Your task to perform on an android device: install app "McDonald's" Image 0: 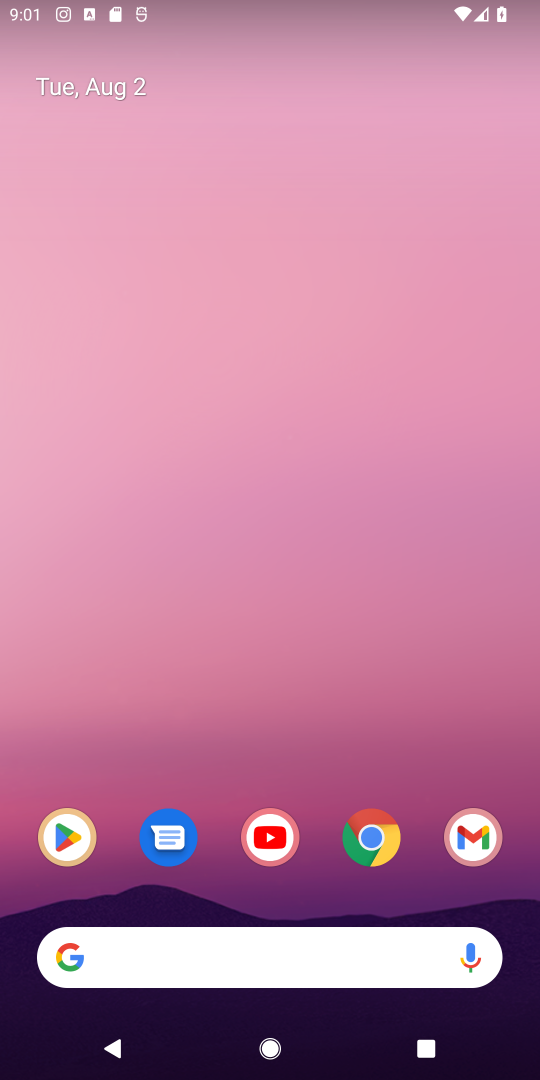
Step 0: click (68, 845)
Your task to perform on an android device: install app "McDonald's" Image 1: 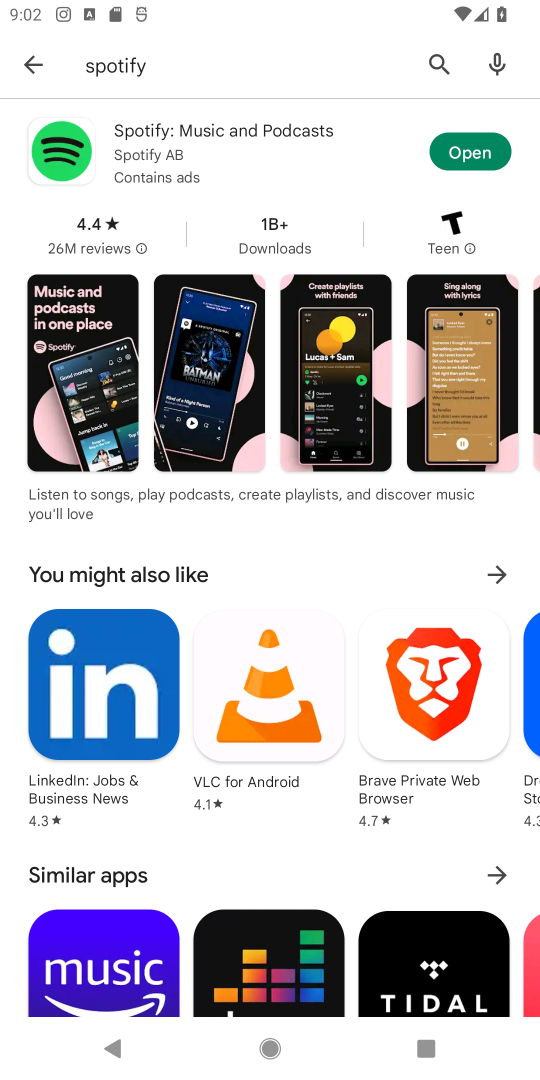
Step 1: click (439, 66)
Your task to perform on an android device: install app "McDonald's" Image 2: 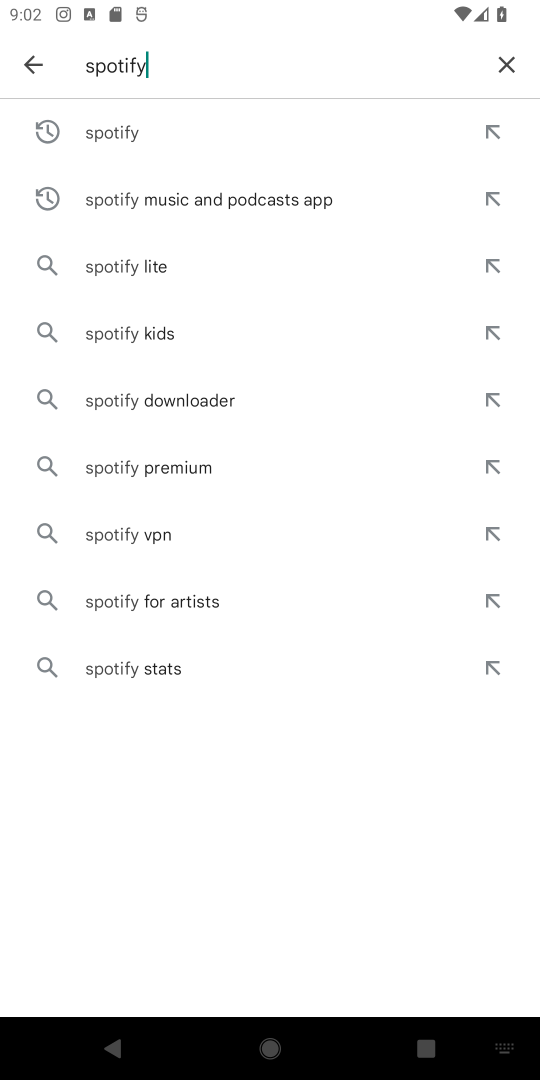
Step 2: click (500, 70)
Your task to perform on an android device: install app "McDonald's" Image 3: 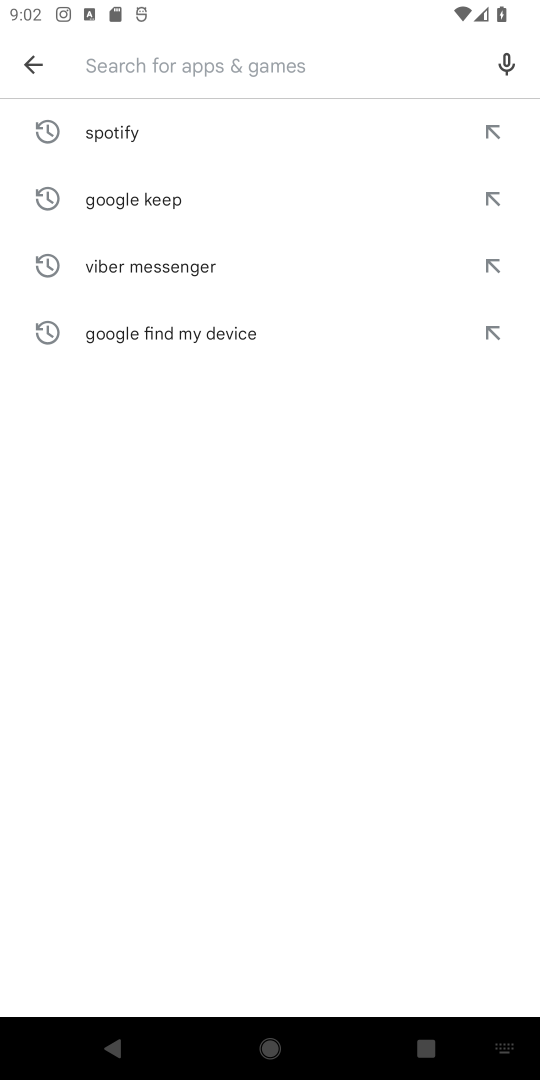
Step 3: type "McDonald's"
Your task to perform on an android device: install app "McDonald's" Image 4: 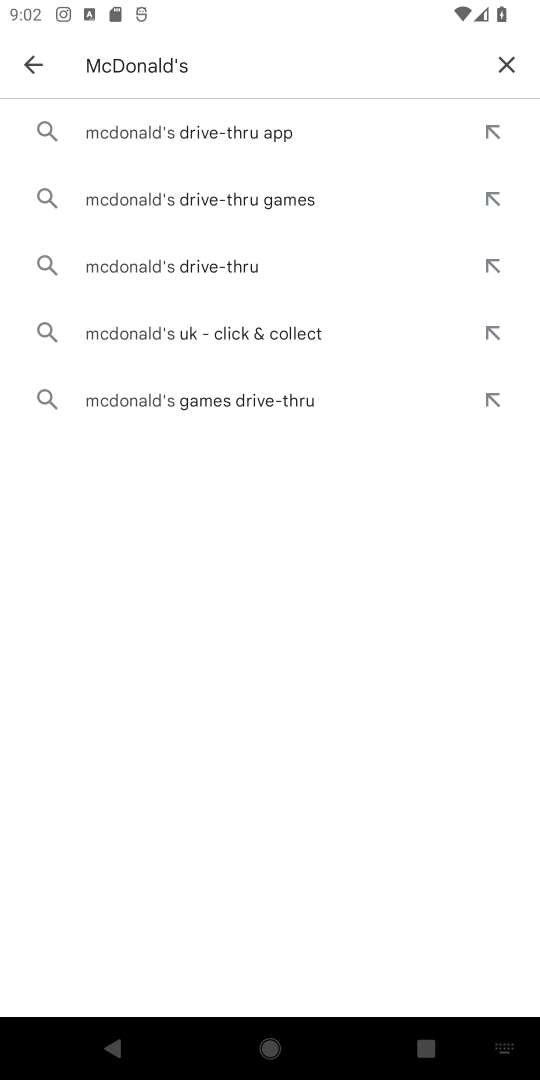
Step 4: click (194, 138)
Your task to perform on an android device: install app "McDonald's" Image 5: 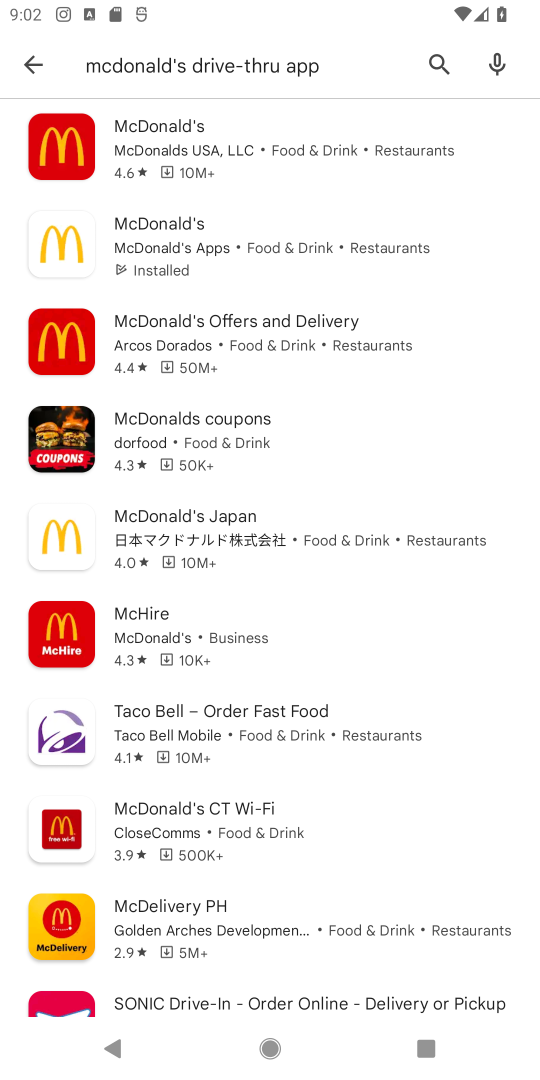
Step 5: click (120, 259)
Your task to perform on an android device: install app "McDonald's" Image 6: 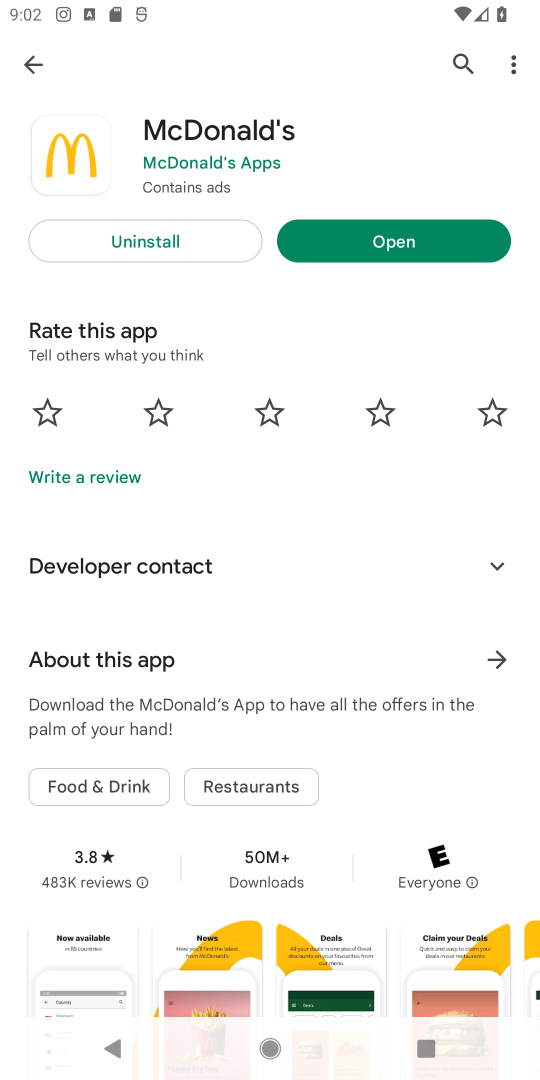
Step 6: task complete